Your task to perform on an android device: Open my contact list Image 0: 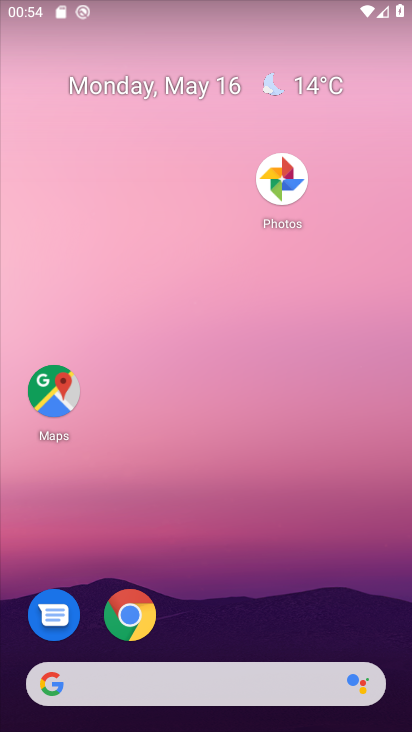
Step 0: drag from (364, 604) to (339, 182)
Your task to perform on an android device: Open my contact list Image 1: 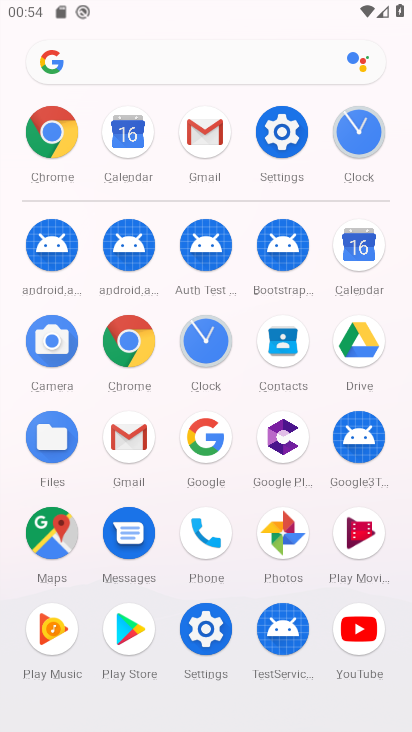
Step 1: click (278, 348)
Your task to perform on an android device: Open my contact list Image 2: 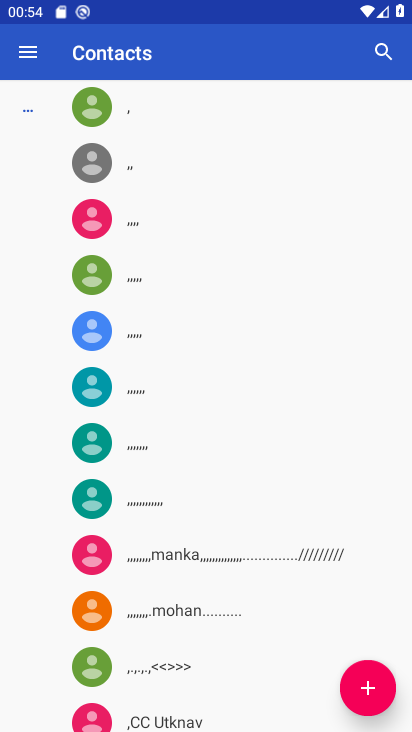
Step 2: task complete